Your task to perform on an android device: Open settings Image 0: 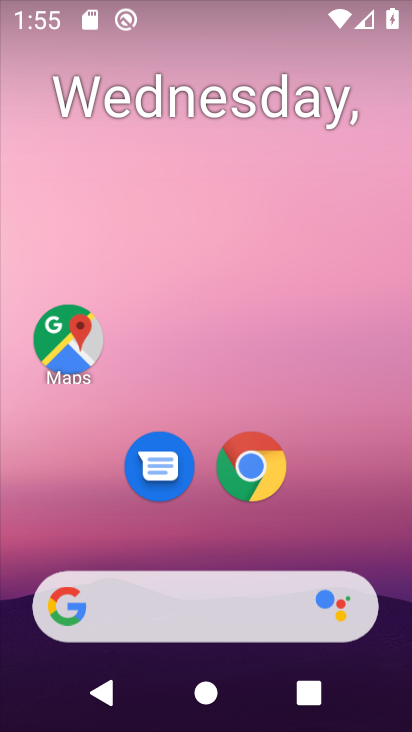
Step 0: drag from (361, 534) to (344, 137)
Your task to perform on an android device: Open settings Image 1: 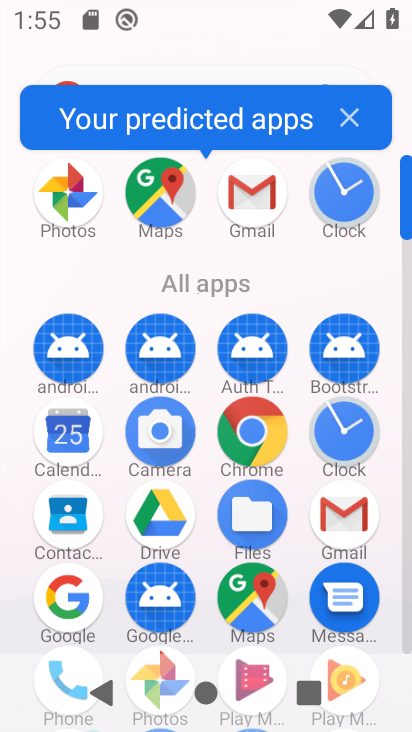
Step 1: drag from (188, 605) to (190, 228)
Your task to perform on an android device: Open settings Image 2: 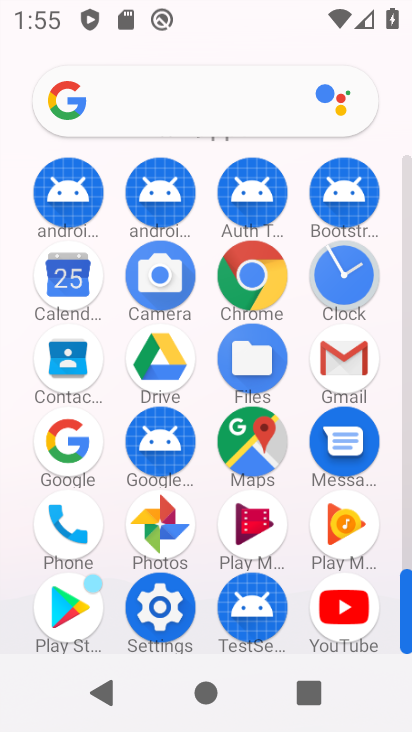
Step 2: click (171, 605)
Your task to perform on an android device: Open settings Image 3: 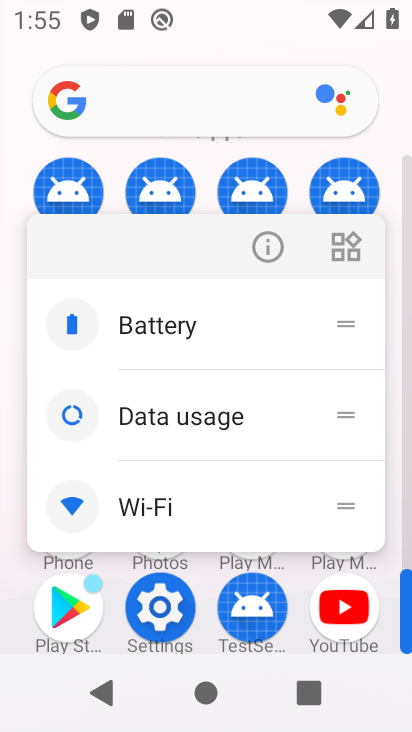
Step 3: click (147, 626)
Your task to perform on an android device: Open settings Image 4: 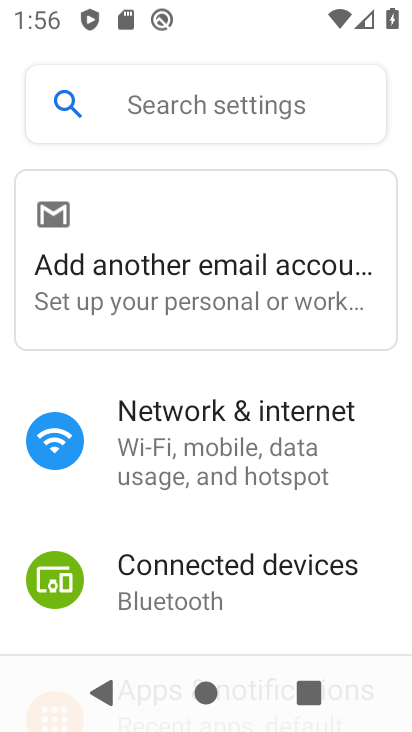
Step 4: task complete